Your task to perform on an android device: Find coffee shops on Maps Image 0: 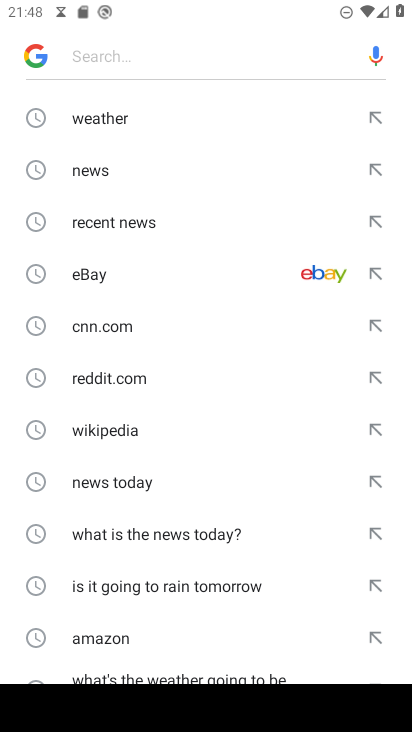
Step 0: press home button
Your task to perform on an android device: Find coffee shops on Maps Image 1: 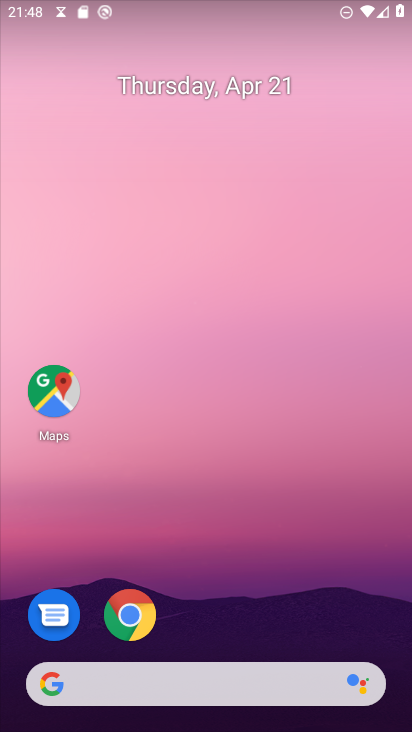
Step 1: drag from (188, 585) to (234, 176)
Your task to perform on an android device: Find coffee shops on Maps Image 2: 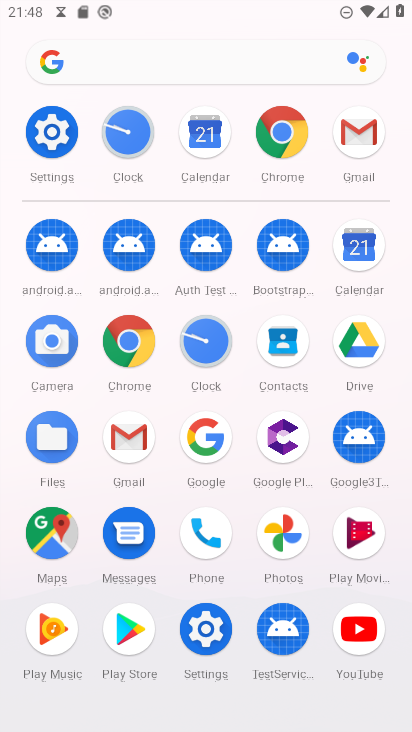
Step 2: click (53, 526)
Your task to perform on an android device: Find coffee shops on Maps Image 3: 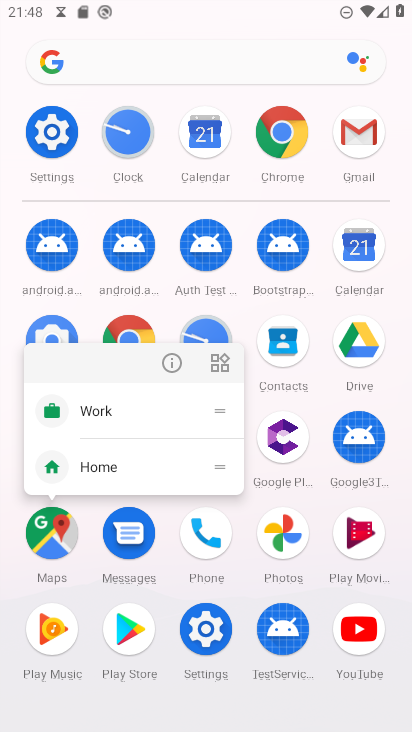
Step 3: click (177, 364)
Your task to perform on an android device: Find coffee shops on Maps Image 4: 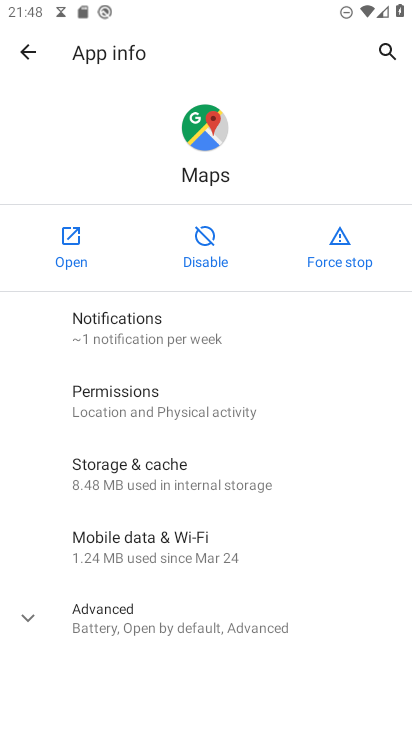
Step 4: click (70, 252)
Your task to perform on an android device: Find coffee shops on Maps Image 5: 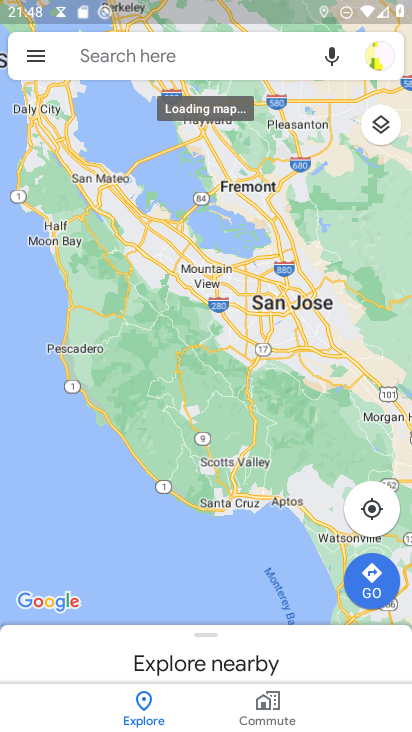
Step 5: drag from (217, 597) to (250, 263)
Your task to perform on an android device: Find coffee shops on Maps Image 6: 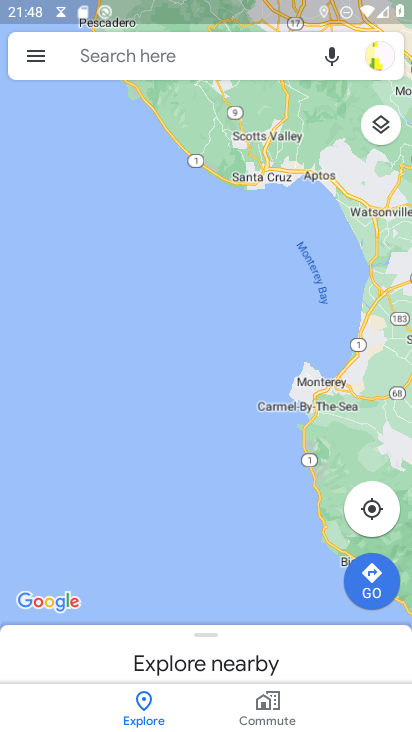
Step 6: drag from (331, 348) to (8, 703)
Your task to perform on an android device: Find coffee shops on Maps Image 7: 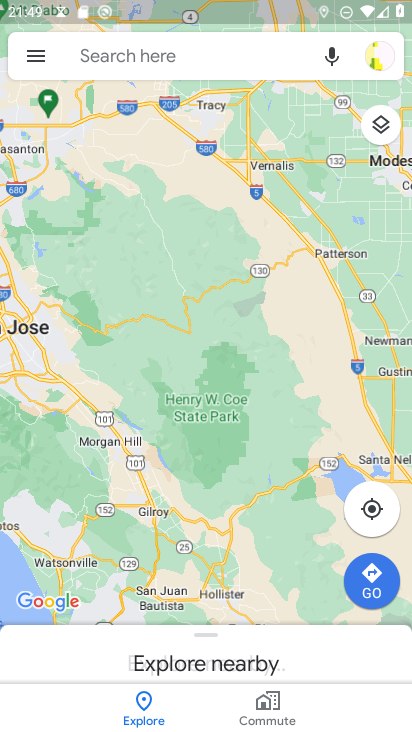
Step 7: drag from (297, 288) to (194, 558)
Your task to perform on an android device: Find coffee shops on Maps Image 8: 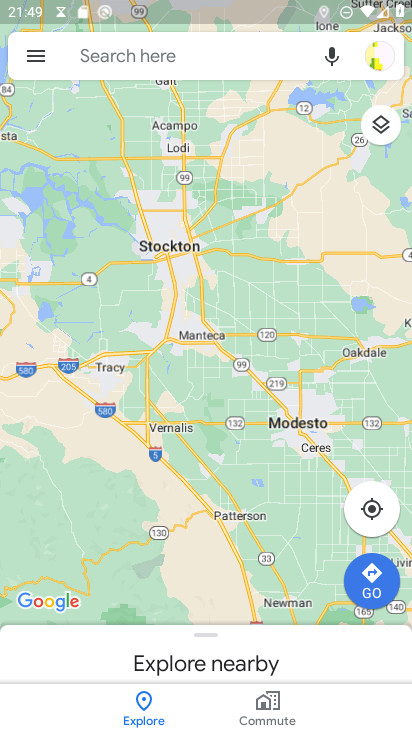
Step 8: drag from (248, 265) to (302, 546)
Your task to perform on an android device: Find coffee shops on Maps Image 9: 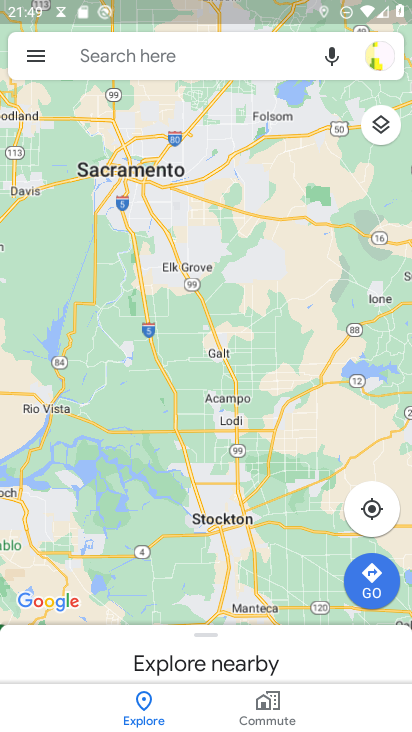
Step 9: drag from (164, 251) to (227, 441)
Your task to perform on an android device: Find coffee shops on Maps Image 10: 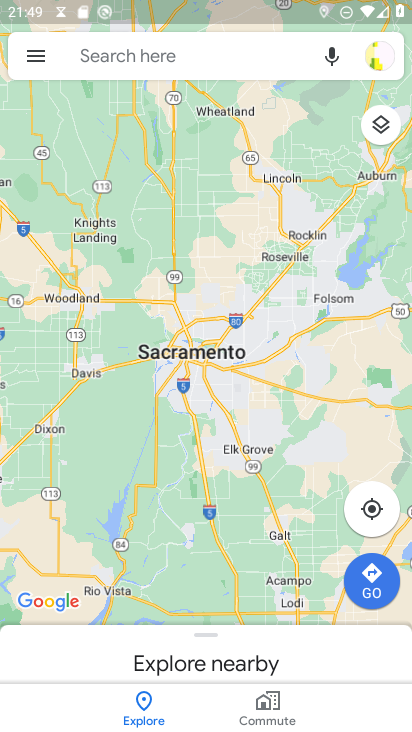
Step 10: drag from (204, 212) to (243, 552)
Your task to perform on an android device: Find coffee shops on Maps Image 11: 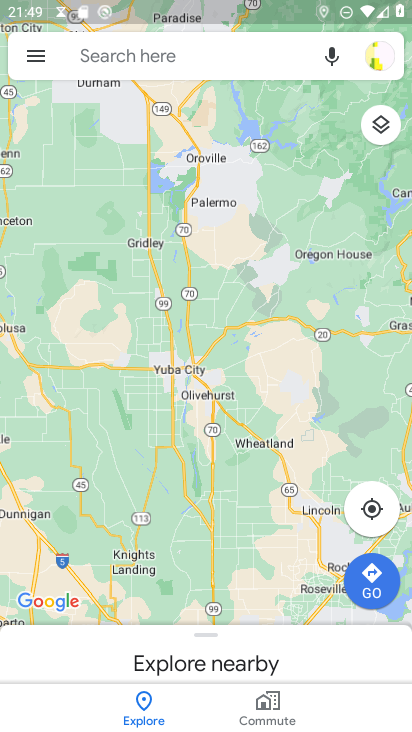
Step 11: click (127, 60)
Your task to perform on an android device: Find coffee shops on Maps Image 12: 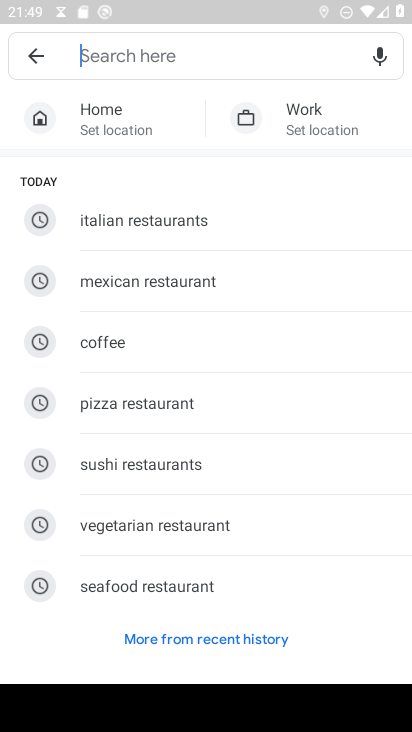
Step 12: click (144, 338)
Your task to perform on an android device: Find coffee shops on Maps Image 13: 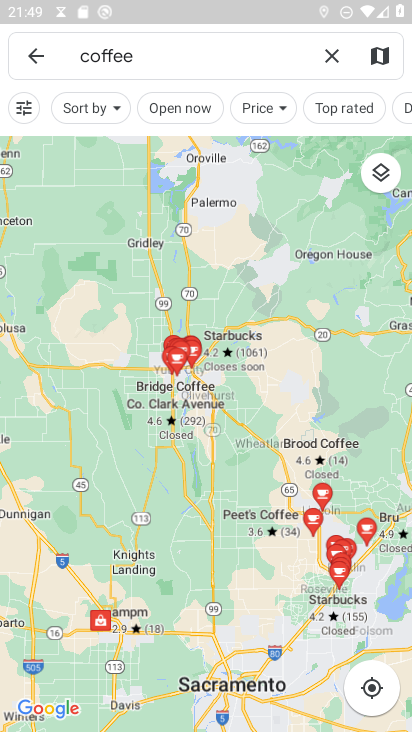
Step 13: task complete